Your task to perform on an android device: Go to accessibility settings Image 0: 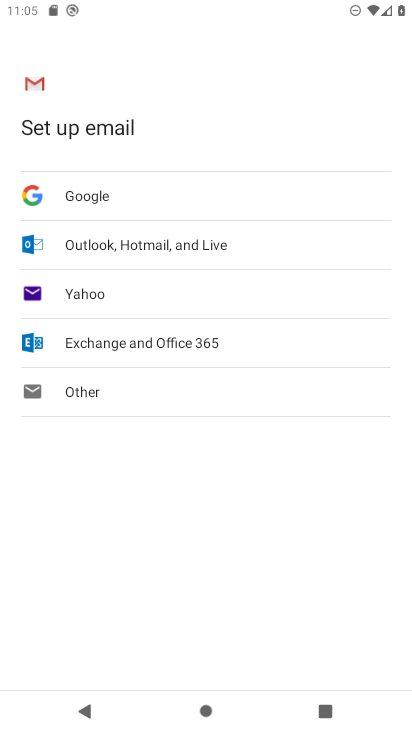
Step 0: press home button
Your task to perform on an android device: Go to accessibility settings Image 1: 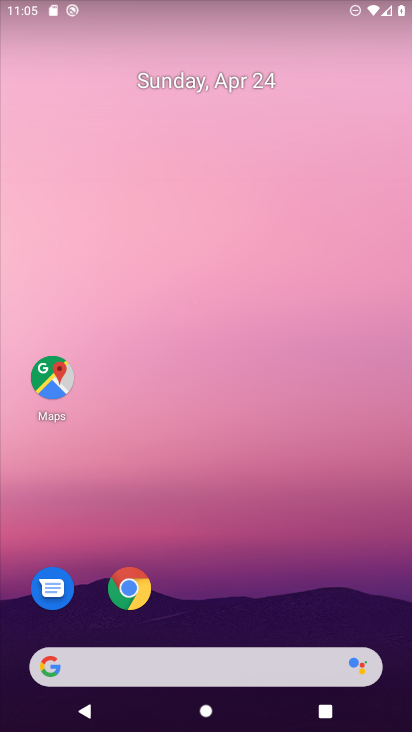
Step 1: drag from (178, 650) to (124, 81)
Your task to perform on an android device: Go to accessibility settings Image 2: 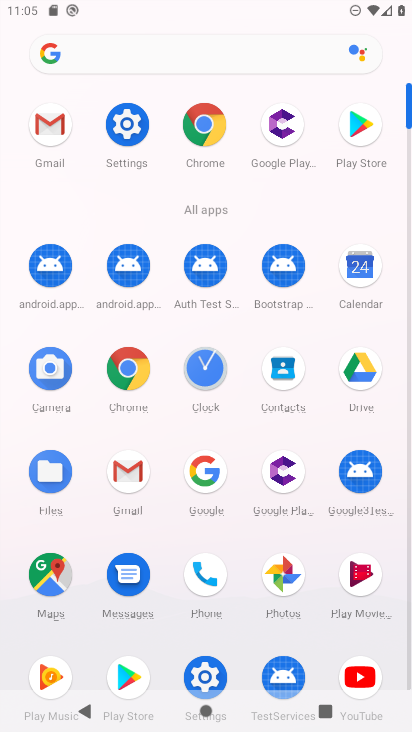
Step 2: click (204, 664)
Your task to perform on an android device: Go to accessibility settings Image 3: 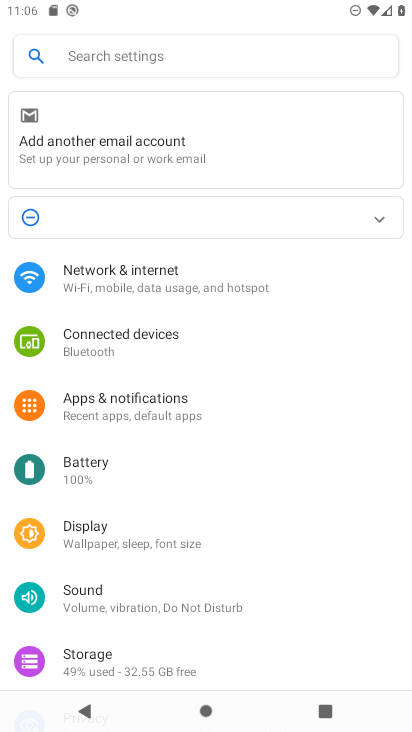
Step 3: drag from (160, 611) to (192, 52)
Your task to perform on an android device: Go to accessibility settings Image 4: 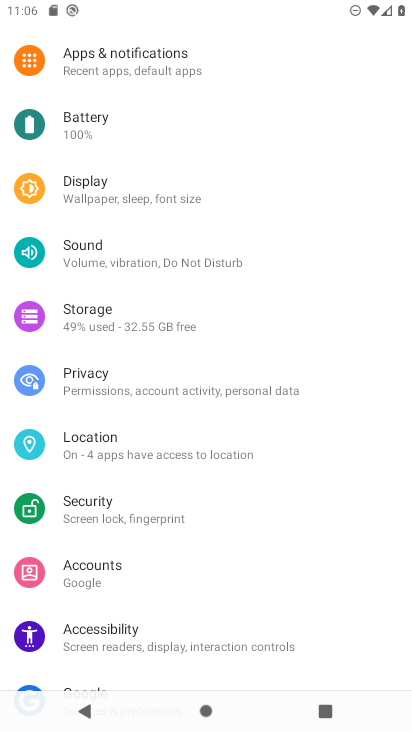
Step 4: click (141, 631)
Your task to perform on an android device: Go to accessibility settings Image 5: 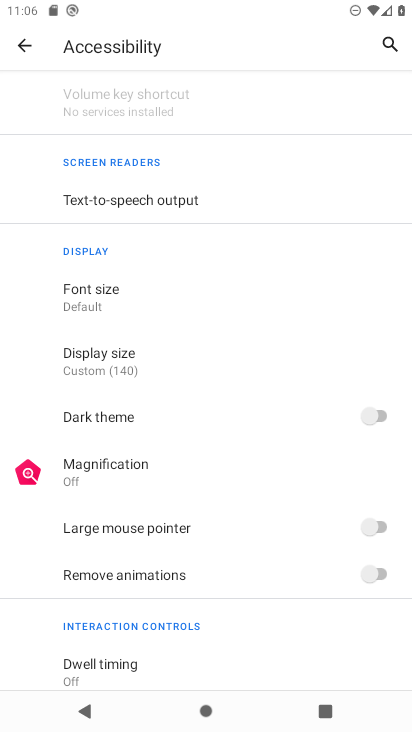
Step 5: task complete